Your task to perform on an android device: check data usage Image 0: 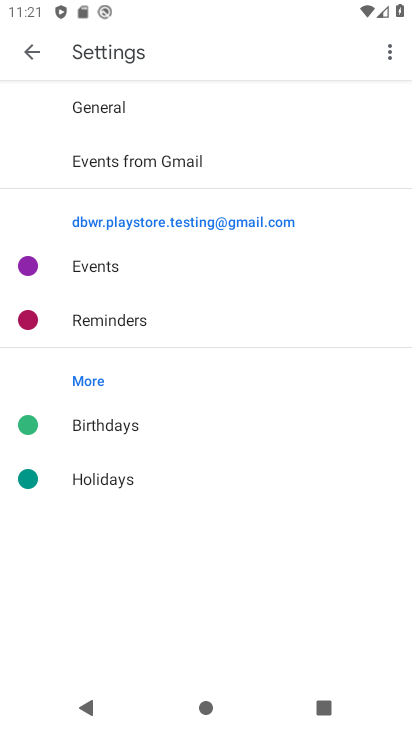
Step 0: press back button
Your task to perform on an android device: check data usage Image 1: 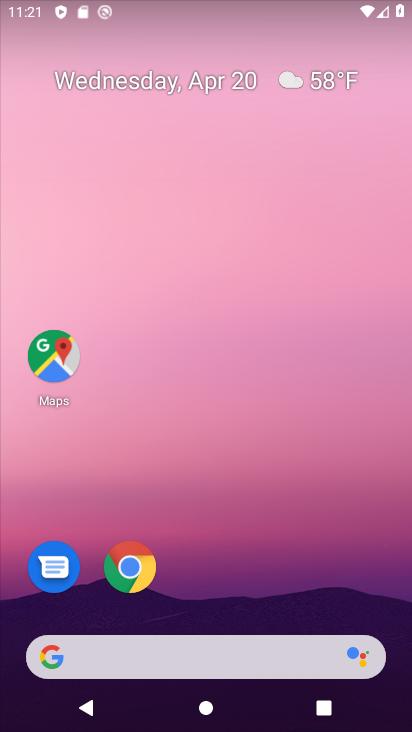
Step 1: drag from (324, 513) to (228, 157)
Your task to perform on an android device: check data usage Image 2: 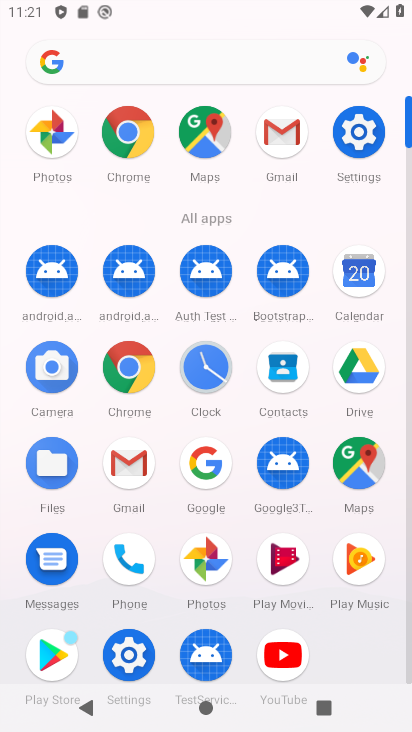
Step 2: click (352, 152)
Your task to perform on an android device: check data usage Image 3: 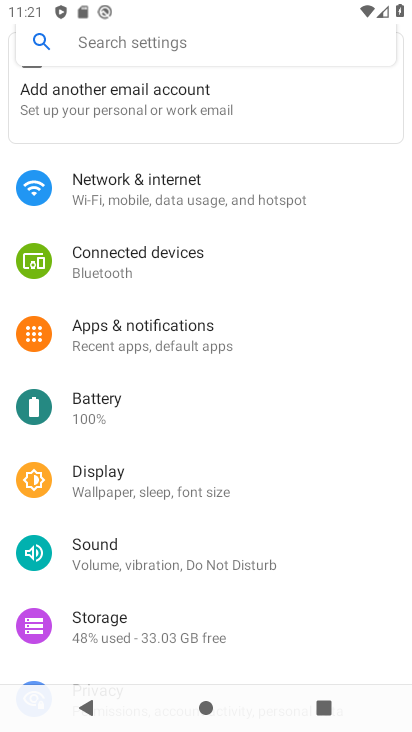
Step 3: click (179, 201)
Your task to perform on an android device: check data usage Image 4: 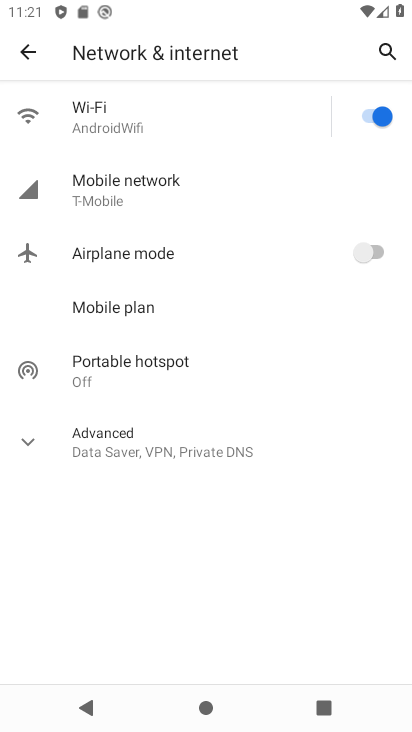
Step 4: click (155, 125)
Your task to perform on an android device: check data usage Image 5: 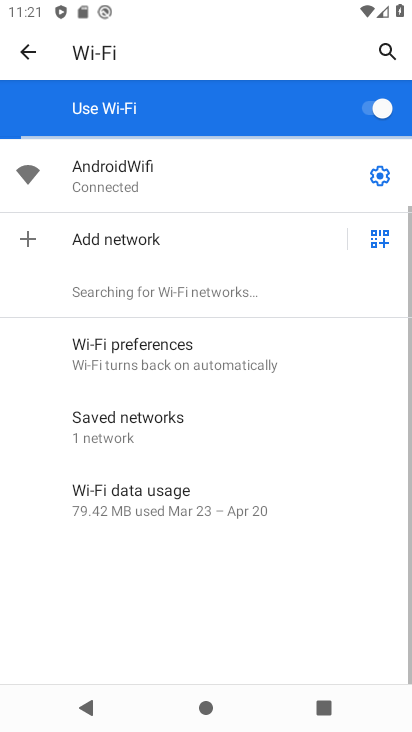
Step 5: click (206, 512)
Your task to perform on an android device: check data usage Image 6: 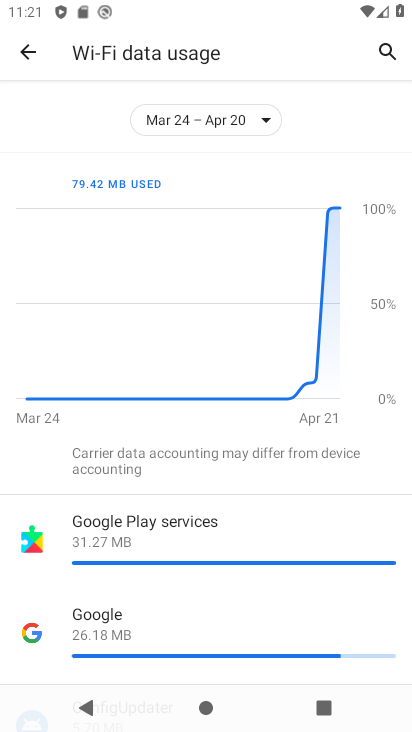
Step 6: task complete